Your task to perform on an android device: turn on data saver in the chrome app Image 0: 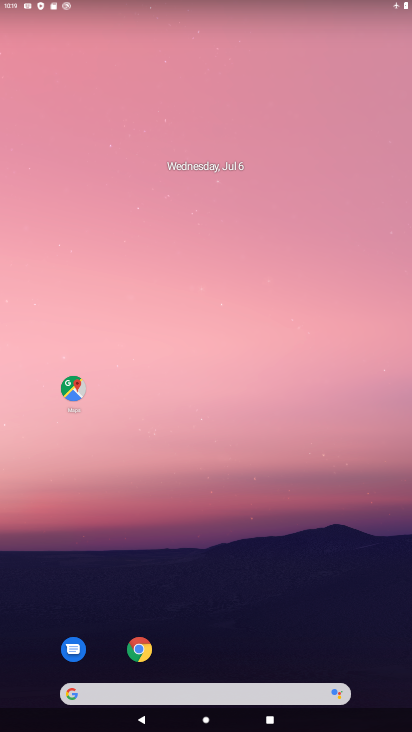
Step 0: click (138, 654)
Your task to perform on an android device: turn on data saver in the chrome app Image 1: 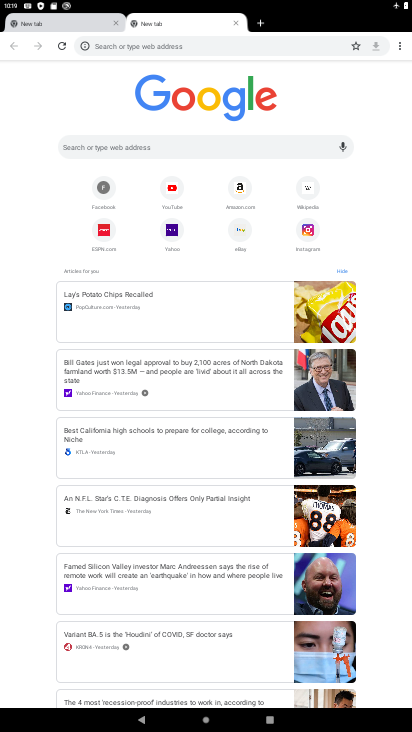
Step 1: click (402, 41)
Your task to perform on an android device: turn on data saver in the chrome app Image 2: 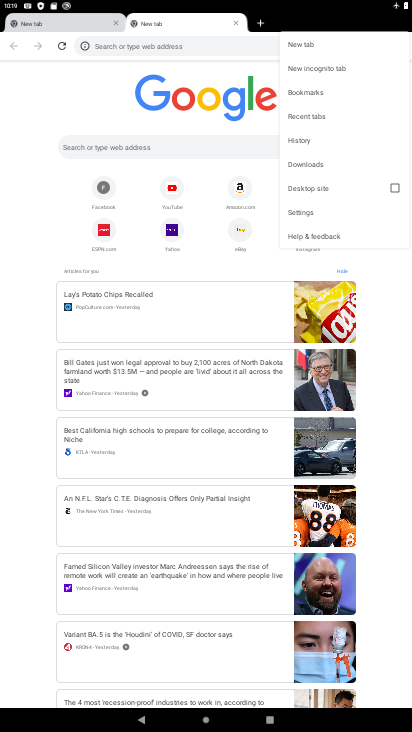
Step 2: click (288, 212)
Your task to perform on an android device: turn on data saver in the chrome app Image 3: 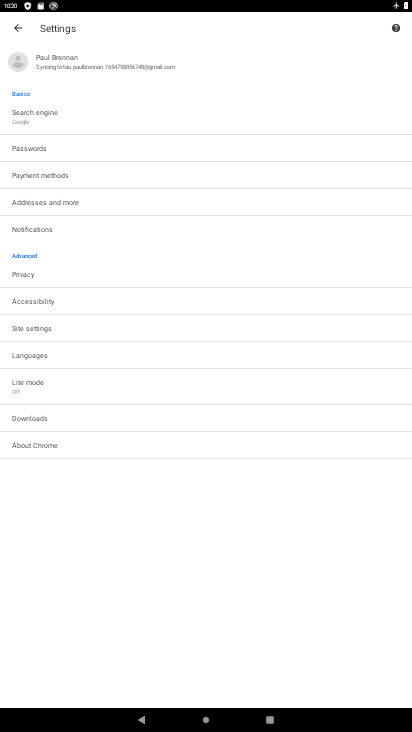
Step 3: click (44, 378)
Your task to perform on an android device: turn on data saver in the chrome app Image 4: 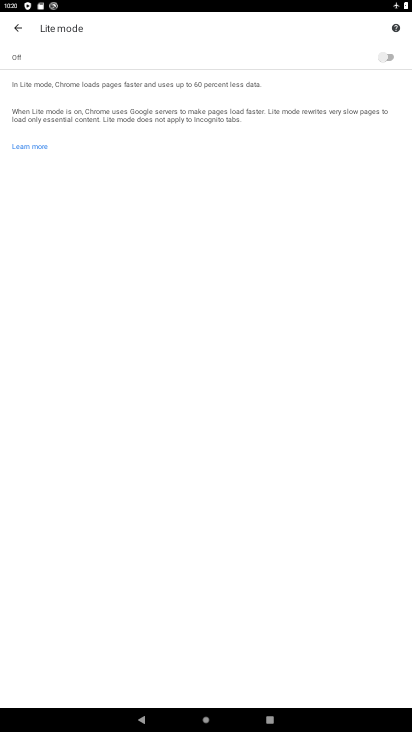
Step 4: click (385, 55)
Your task to perform on an android device: turn on data saver in the chrome app Image 5: 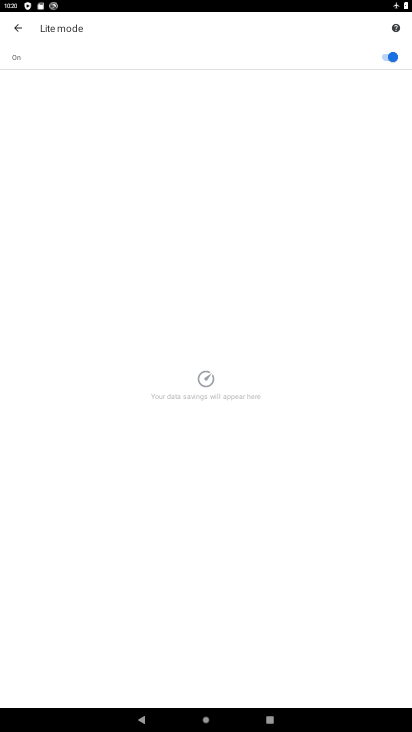
Step 5: task complete